Your task to perform on an android device: How do I get to the nearest Chipotle? Image 0: 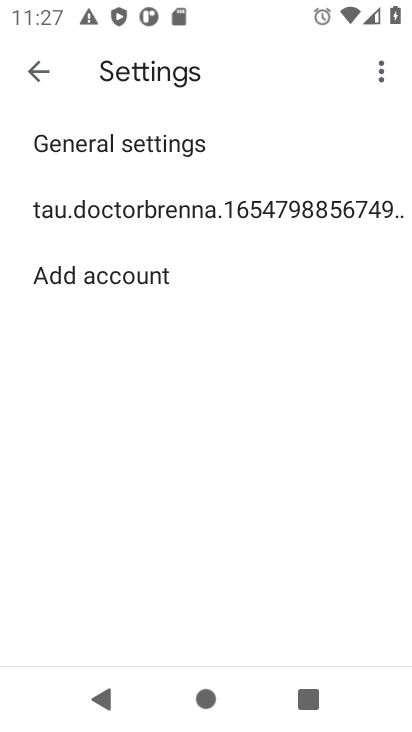
Step 0: press home button
Your task to perform on an android device: How do I get to the nearest Chipotle? Image 1: 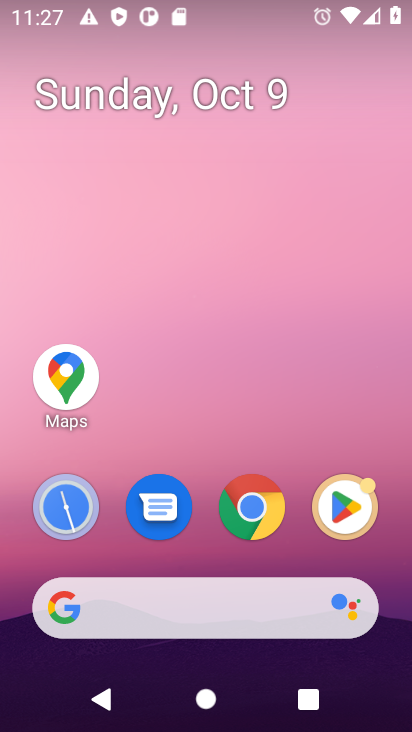
Step 1: click (251, 602)
Your task to perform on an android device: How do I get to the nearest Chipotle? Image 2: 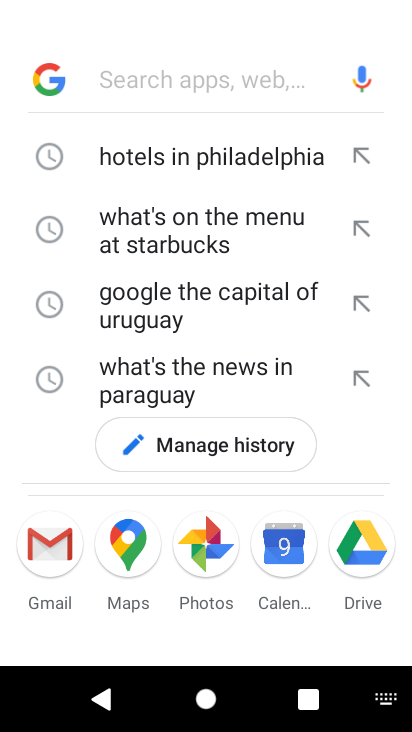
Step 2: type "How do I get to the nearest Chipotle"
Your task to perform on an android device: How do I get to the nearest Chipotle? Image 3: 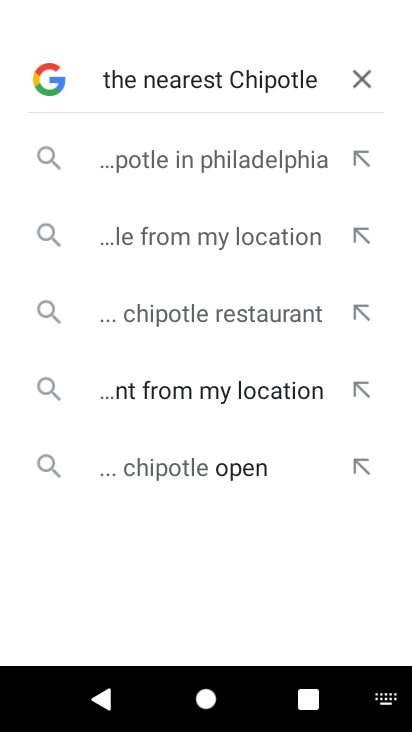
Step 3: press enter
Your task to perform on an android device: How do I get to the nearest Chipotle? Image 4: 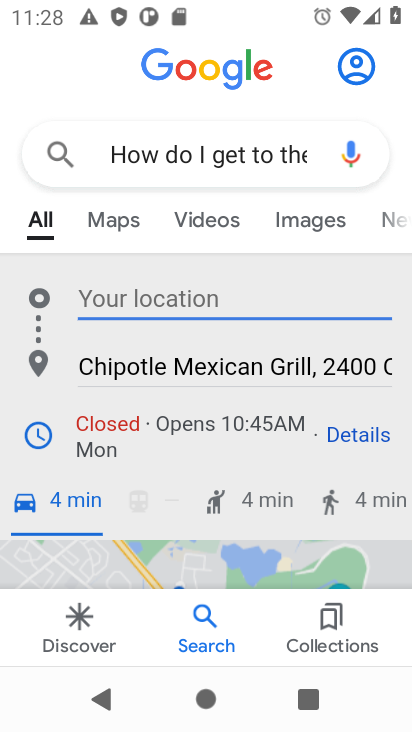
Step 4: task complete